Your task to perform on an android device: Open eBay Image 0: 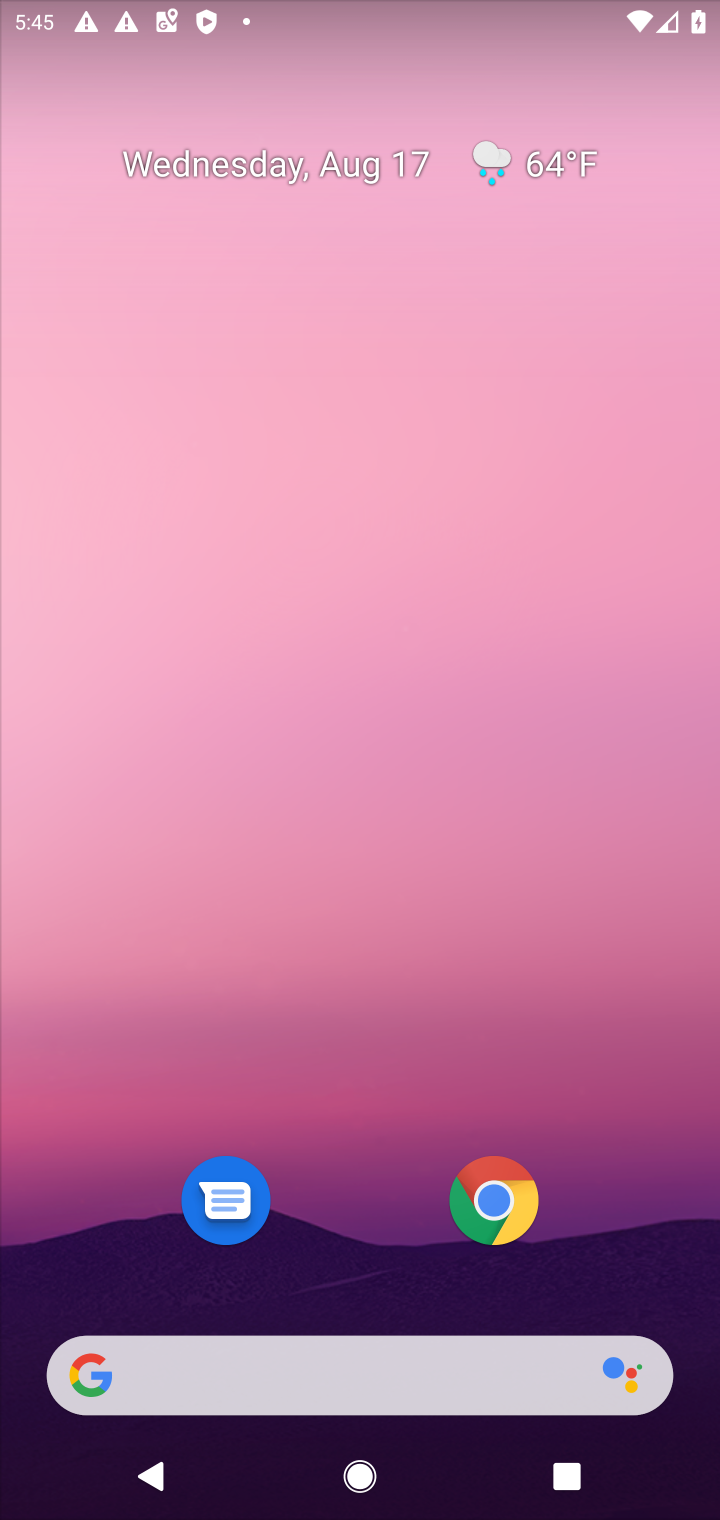
Step 0: click (499, 1205)
Your task to perform on an android device: Open eBay Image 1: 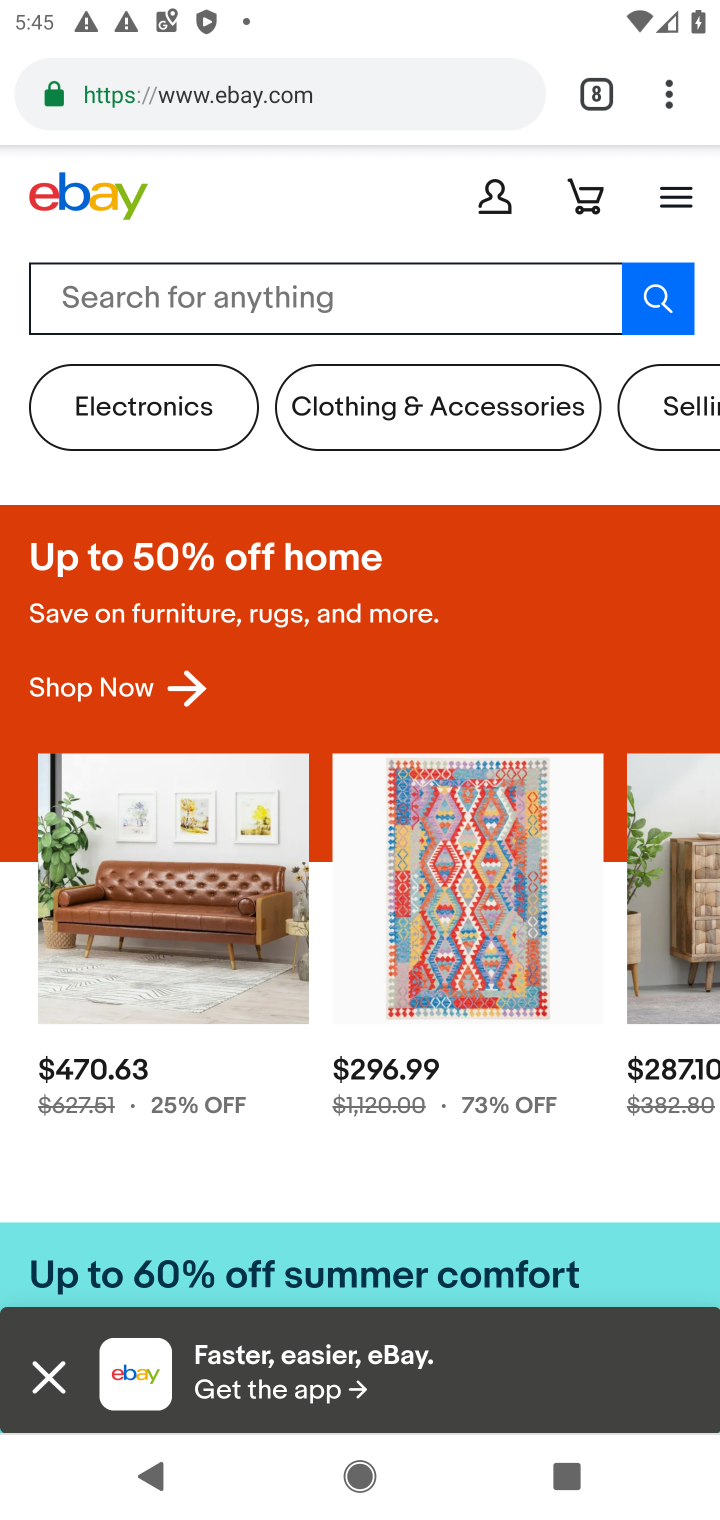
Step 1: task complete